Your task to perform on an android device: Open ESPN.com Image 0: 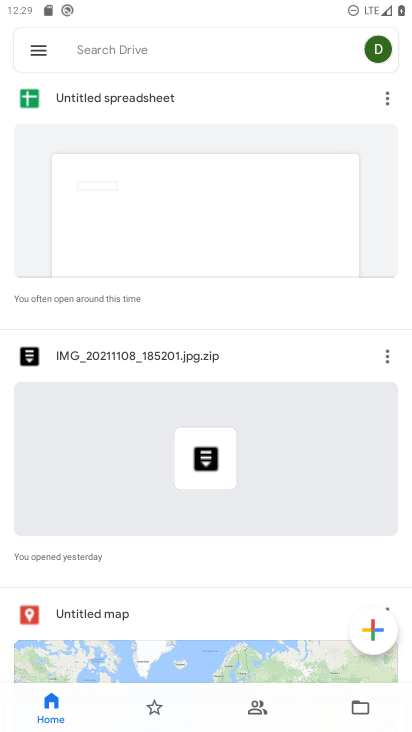
Step 0: press home button
Your task to perform on an android device: Open ESPN.com Image 1: 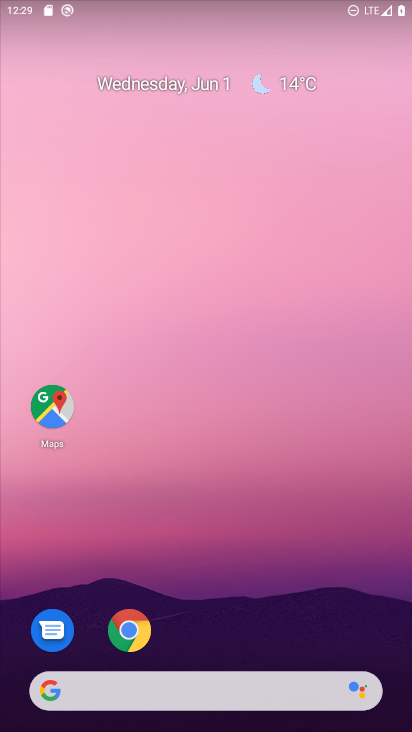
Step 1: click (127, 630)
Your task to perform on an android device: Open ESPN.com Image 2: 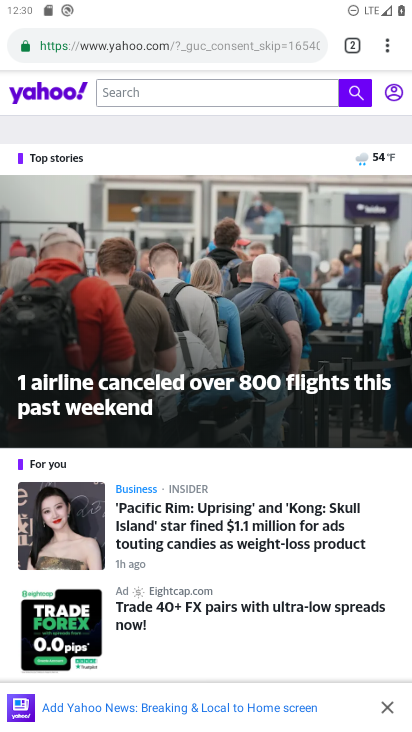
Step 2: click (175, 48)
Your task to perform on an android device: Open ESPN.com Image 3: 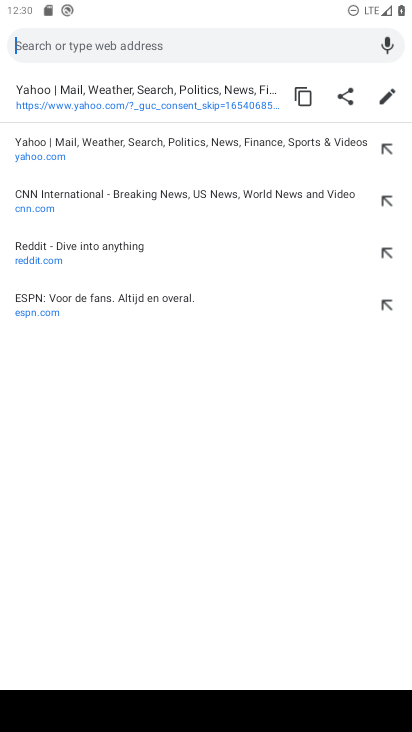
Step 3: click (35, 314)
Your task to perform on an android device: Open ESPN.com Image 4: 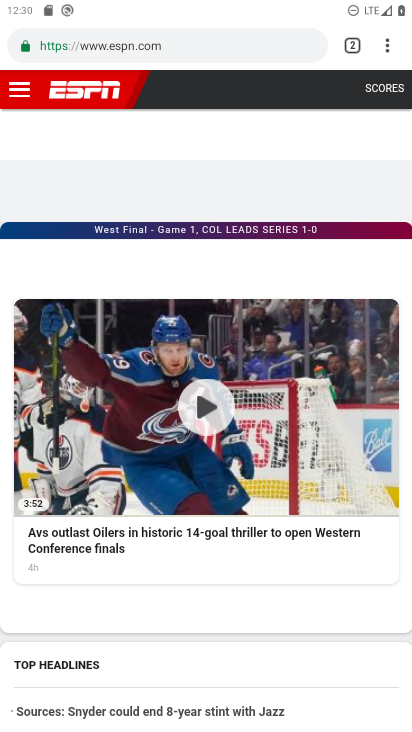
Step 4: task complete